Your task to perform on an android device: Open eBay Image 0: 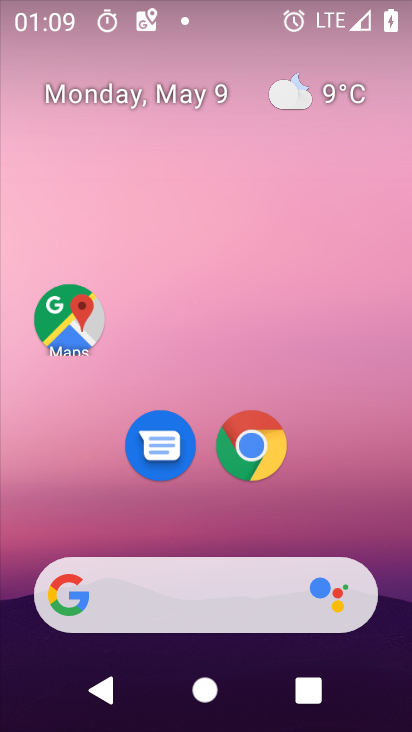
Step 0: click (251, 446)
Your task to perform on an android device: Open eBay Image 1: 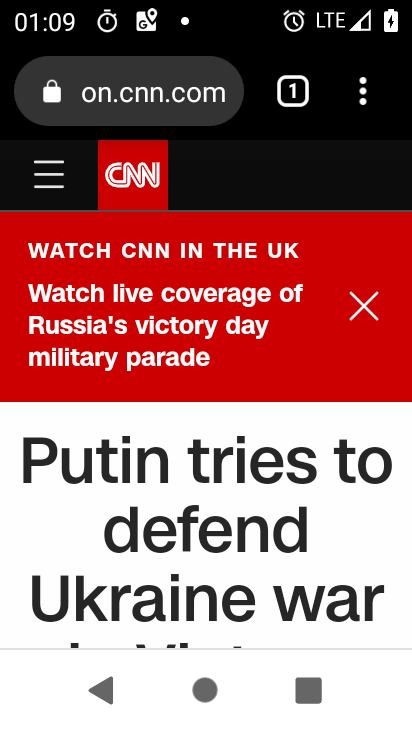
Step 1: click (117, 100)
Your task to perform on an android device: Open eBay Image 2: 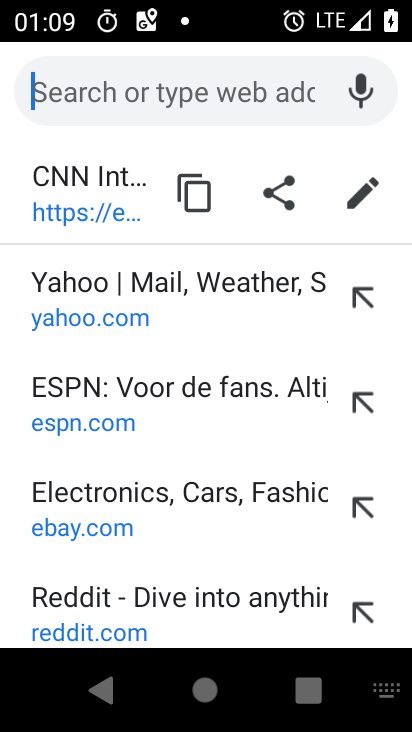
Step 2: type "ebay"
Your task to perform on an android device: Open eBay Image 3: 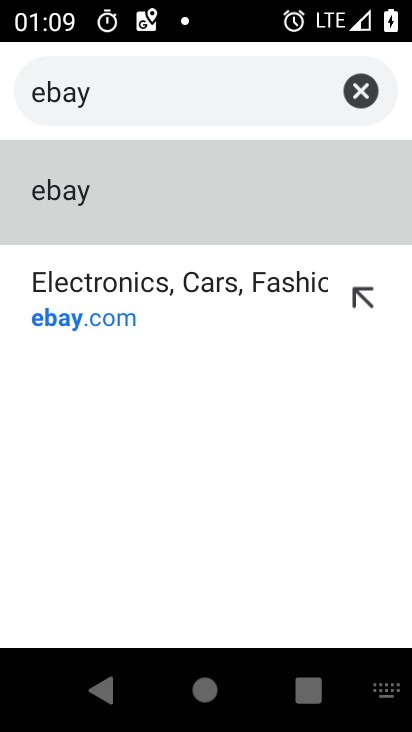
Step 3: click (43, 205)
Your task to perform on an android device: Open eBay Image 4: 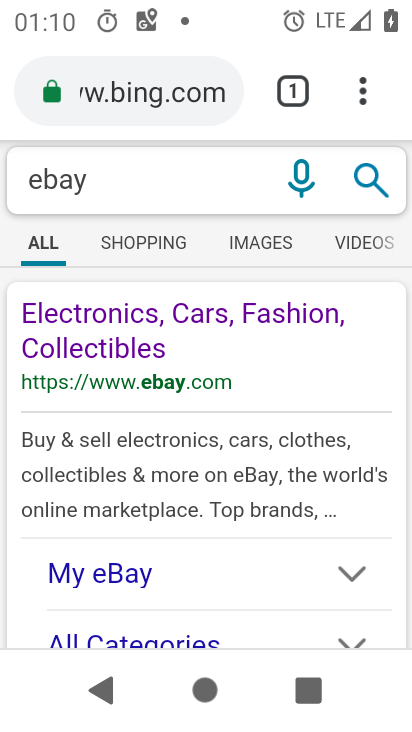
Step 4: click (106, 381)
Your task to perform on an android device: Open eBay Image 5: 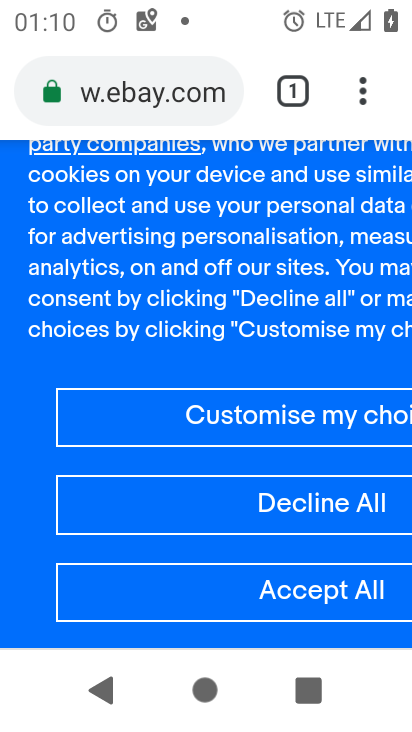
Step 5: task complete